Your task to perform on an android device: set the timer Image 0: 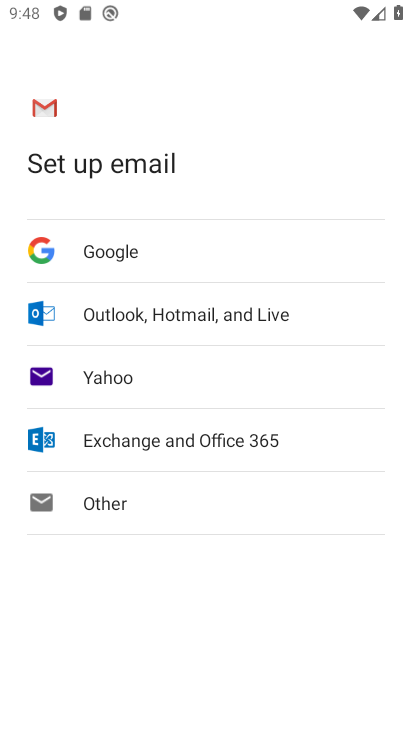
Step 0: press back button
Your task to perform on an android device: set the timer Image 1: 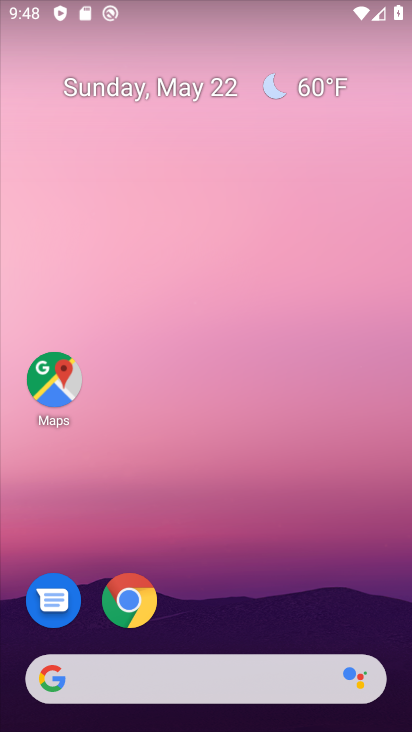
Step 1: drag from (251, 619) to (177, 89)
Your task to perform on an android device: set the timer Image 2: 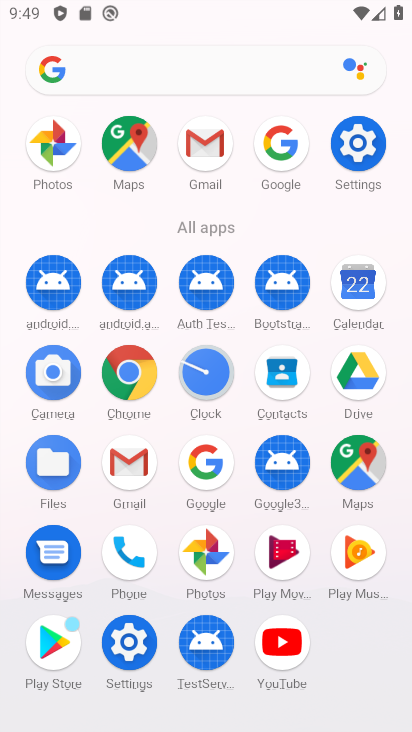
Step 2: click (205, 373)
Your task to perform on an android device: set the timer Image 3: 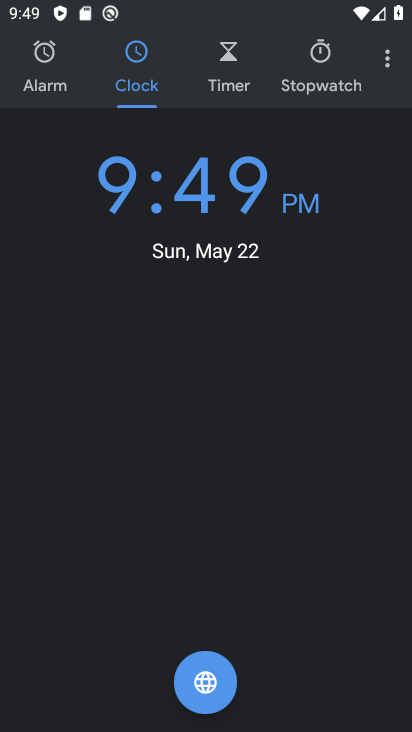
Step 3: click (226, 60)
Your task to perform on an android device: set the timer Image 4: 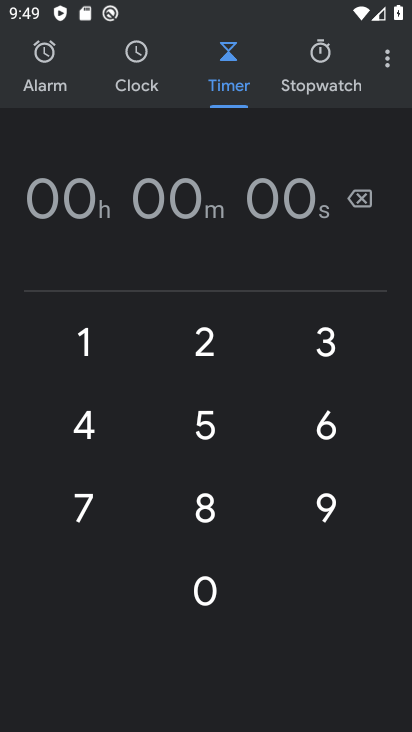
Step 4: type "1583"
Your task to perform on an android device: set the timer Image 5: 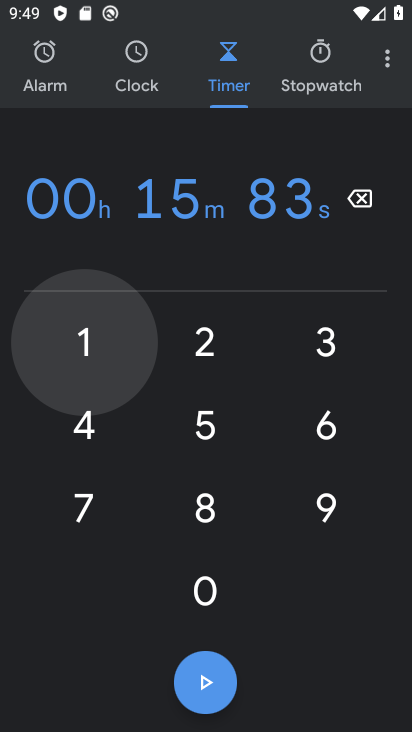
Step 5: click (208, 683)
Your task to perform on an android device: set the timer Image 6: 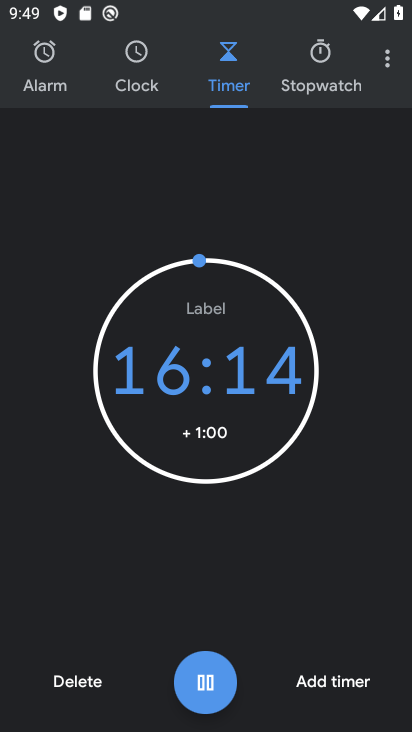
Step 6: click (208, 683)
Your task to perform on an android device: set the timer Image 7: 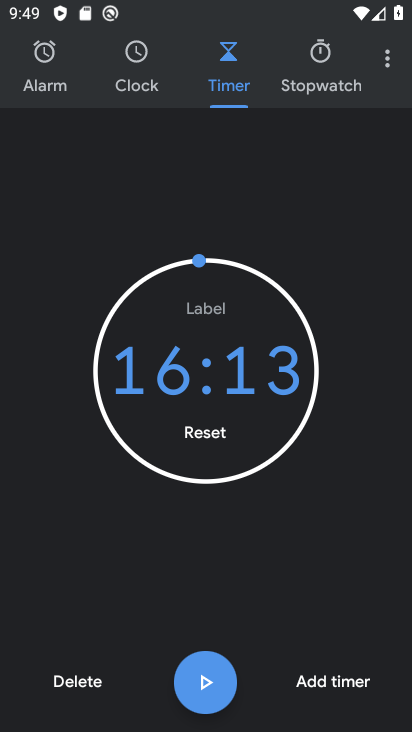
Step 7: task complete